Your task to perform on an android device: add a contact in the contacts app Image 0: 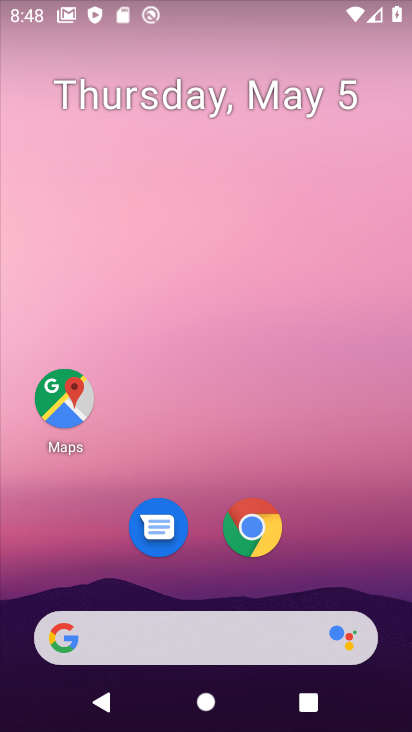
Step 0: drag from (380, 545) to (247, 56)
Your task to perform on an android device: add a contact in the contacts app Image 1: 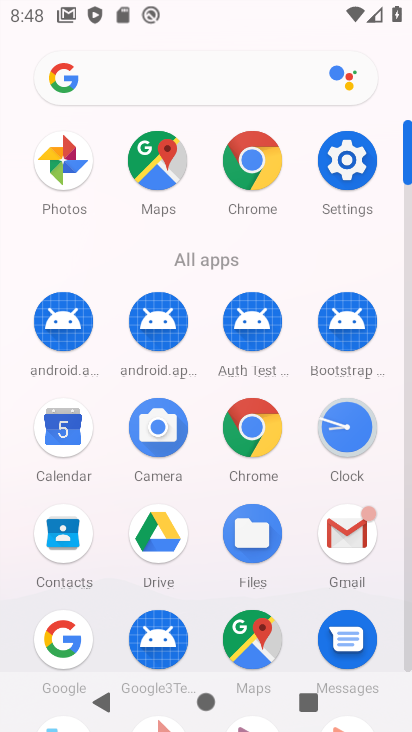
Step 1: click (49, 532)
Your task to perform on an android device: add a contact in the contacts app Image 2: 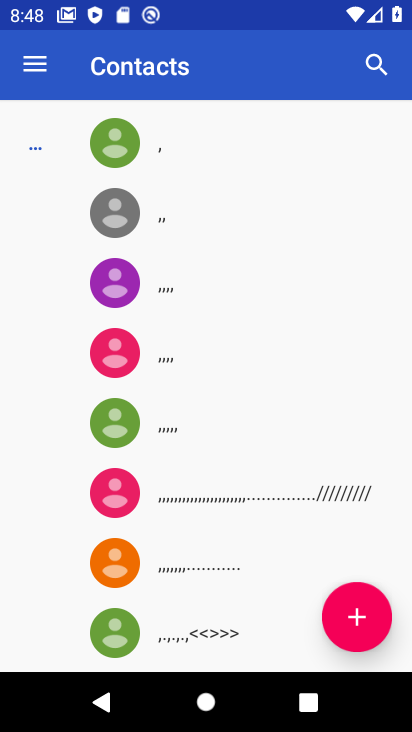
Step 2: click (357, 608)
Your task to perform on an android device: add a contact in the contacts app Image 3: 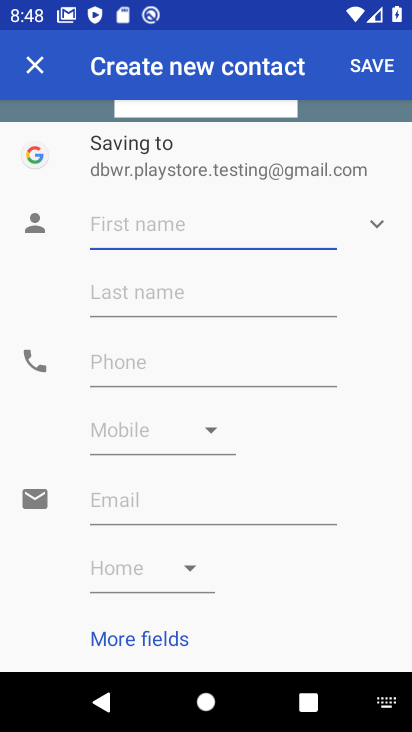
Step 3: click (294, 231)
Your task to perform on an android device: add a contact in the contacts app Image 4: 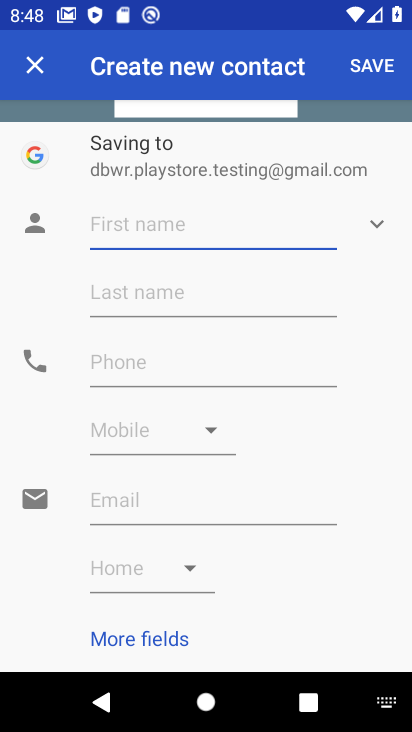
Step 4: type "shishi"
Your task to perform on an android device: add a contact in the contacts app Image 5: 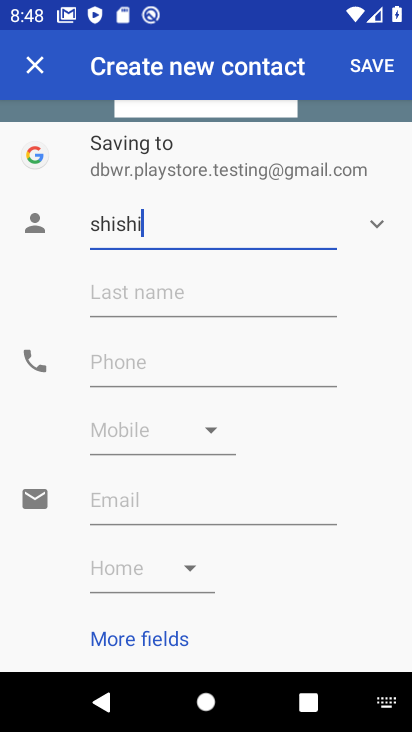
Step 5: click (150, 371)
Your task to perform on an android device: add a contact in the contacts app Image 6: 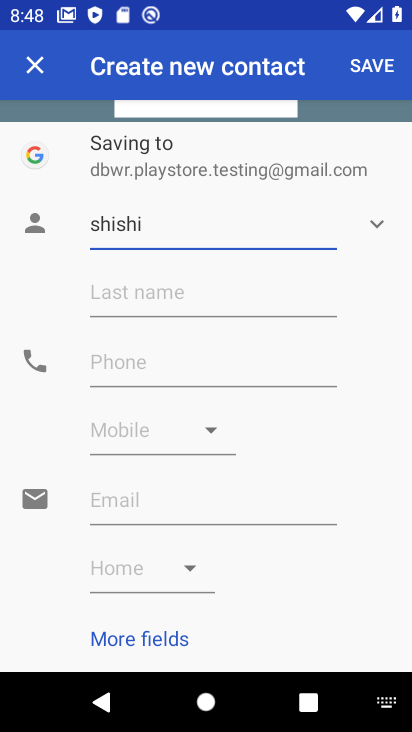
Step 6: click (150, 371)
Your task to perform on an android device: add a contact in the contacts app Image 7: 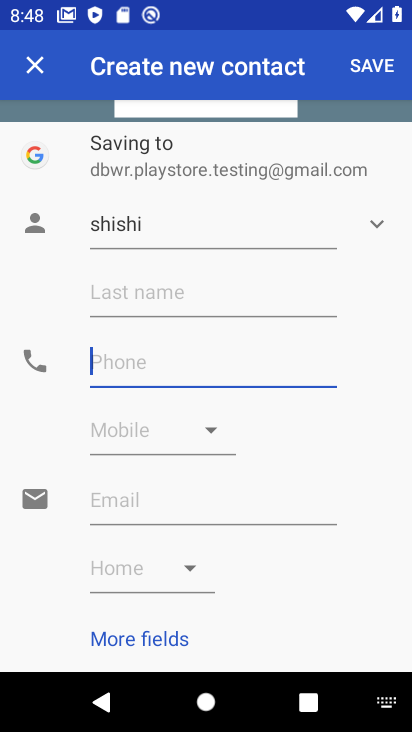
Step 7: click (150, 371)
Your task to perform on an android device: add a contact in the contacts app Image 8: 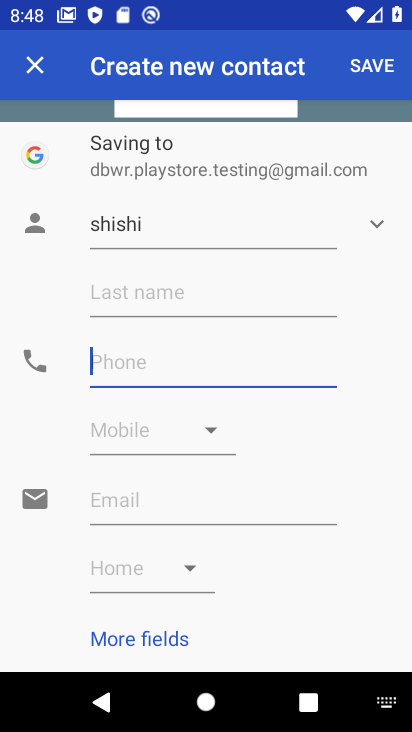
Step 8: click (150, 371)
Your task to perform on an android device: add a contact in the contacts app Image 9: 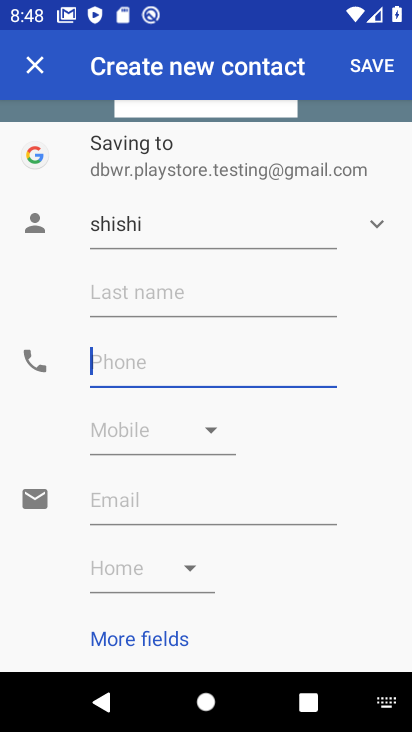
Step 9: click (150, 371)
Your task to perform on an android device: add a contact in the contacts app Image 10: 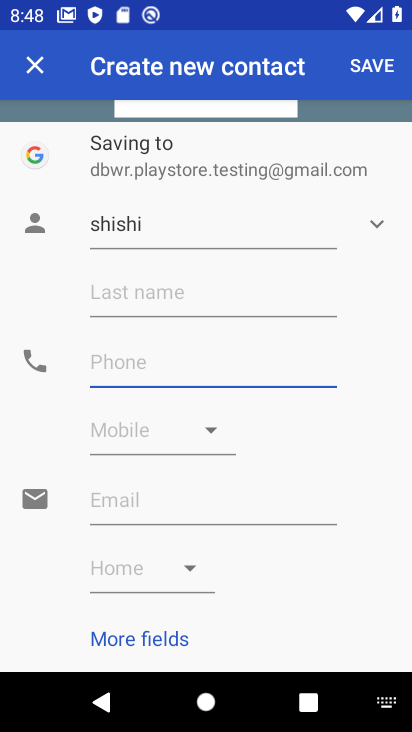
Step 10: click (150, 371)
Your task to perform on an android device: add a contact in the contacts app Image 11: 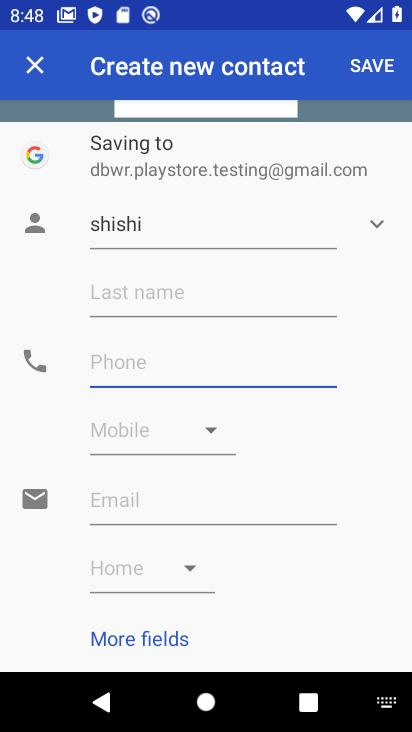
Step 11: click (150, 371)
Your task to perform on an android device: add a contact in the contacts app Image 12: 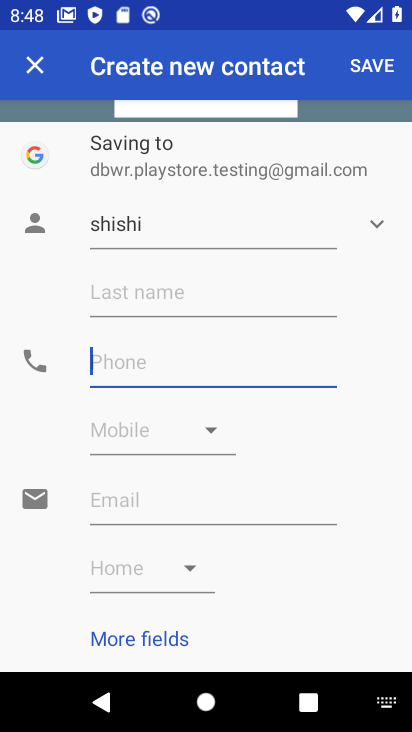
Step 12: click (150, 371)
Your task to perform on an android device: add a contact in the contacts app Image 13: 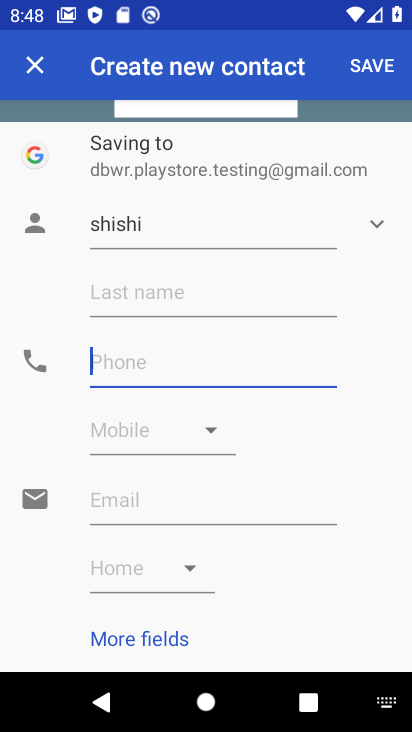
Step 13: click (150, 371)
Your task to perform on an android device: add a contact in the contacts app Image 14: 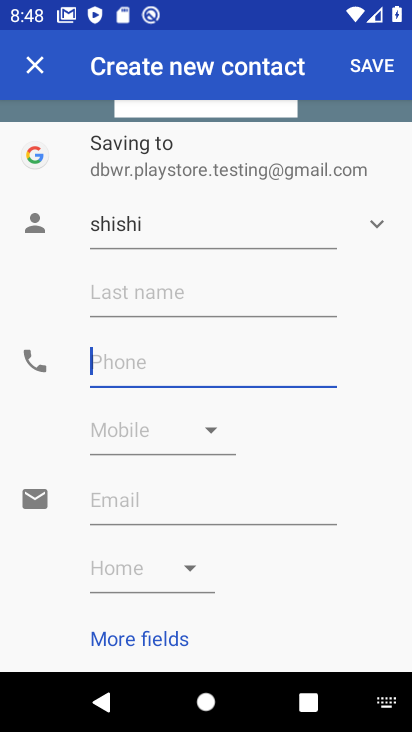
Step 14: type "8775709"
Your task to perform on an android device: add a contact in the contacts app Image 15: 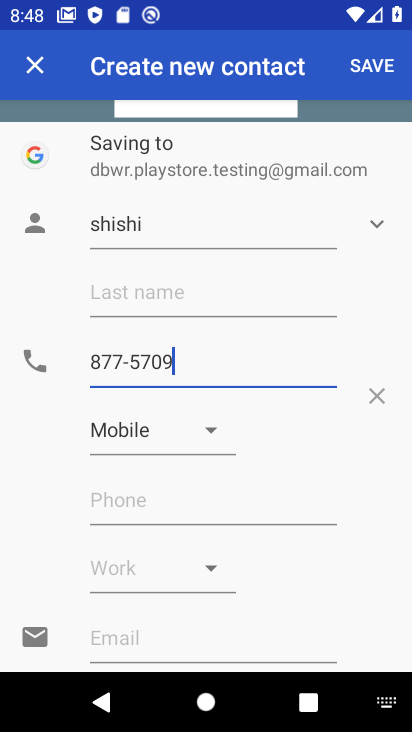
Step 15: task complete